Your task to perform on an android device: Go to CNN.com Image 0: 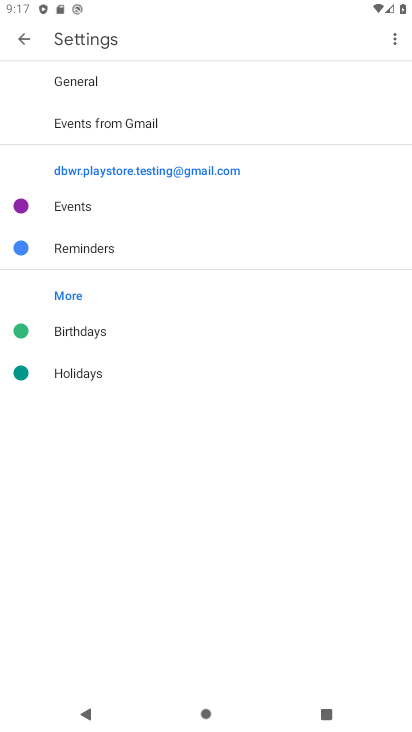
Step 0: press home button
Your task to perform on an android device: Go to CNN.com Image 1: 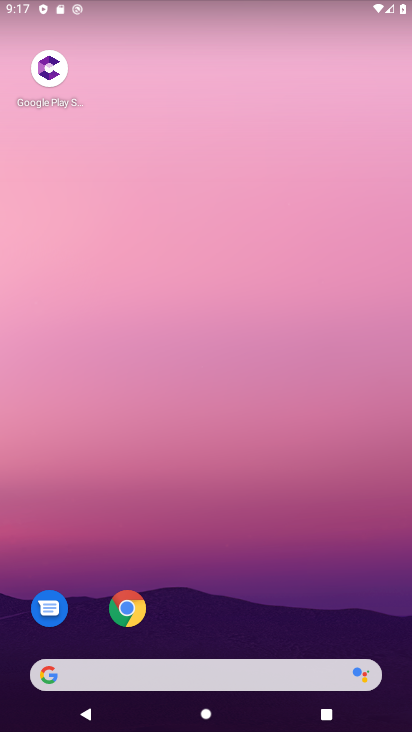
Step 1: click (129, 600)
Your task to perform on an android device: Go to CNN.com Image 2: 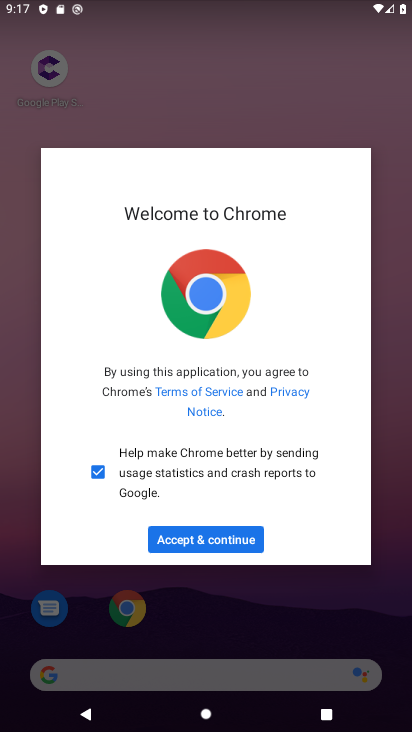
Step 2: click (231, 538)
Your task to perform on an android device: Go to CNN.com Image 3: 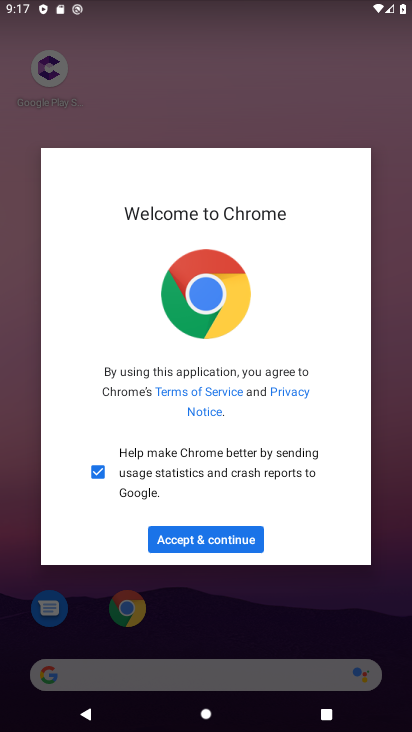
Step 3: click (324, 543)
Your task to perform on an android device: Go to CNN.com Image 4: 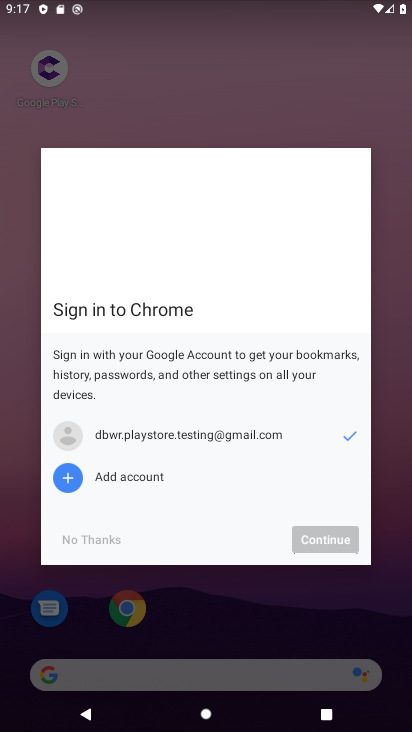
Step 4: click (324, 543)
Your task to perform on an android device: Go to CNN.com Image 5: 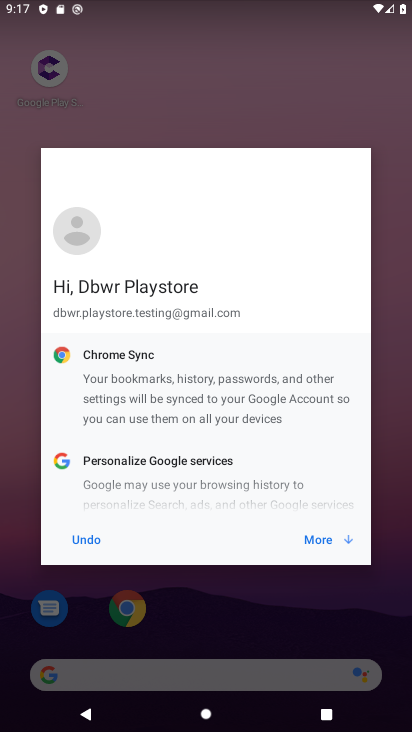
Step 5: click (324, 543)
Your task to perform on an android device: Go to CNN.com Image 6: 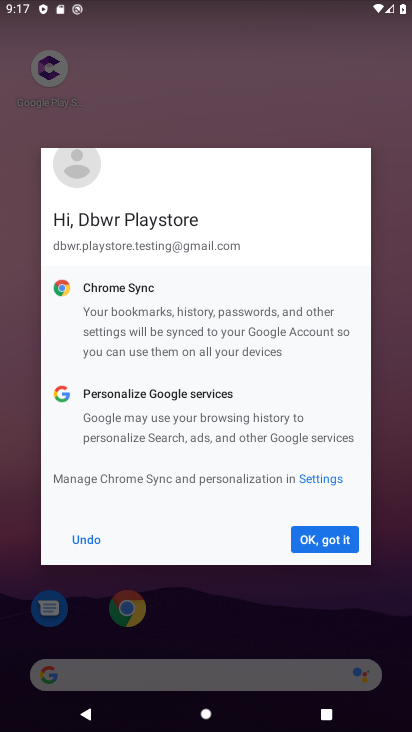
Step 6: click (324, 543)
Your task to perform on an android device: Go to CNN.com Image 7: 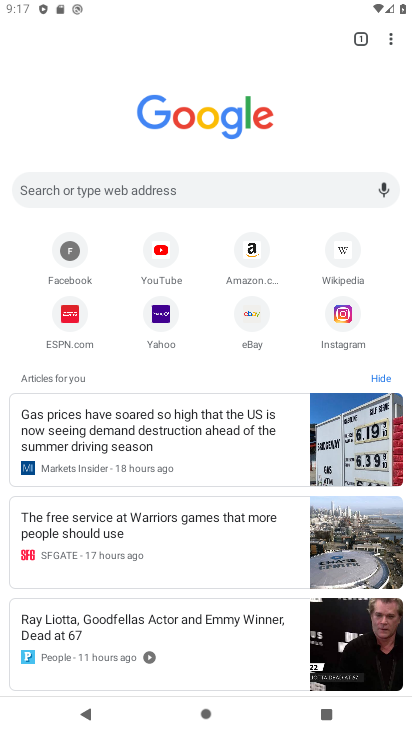
Step 7: click (144, 186)
Your task to perform on an android device: Go to CNN.com Image 8: 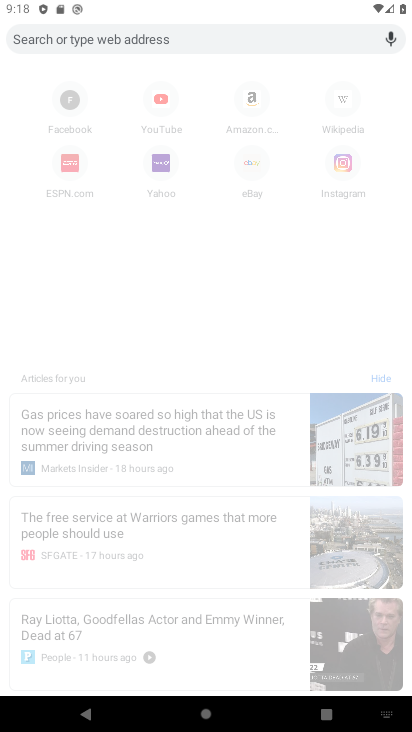
Step 8: type "CNN.com"
Your task to perform on an android device: Go to CNN.com Image 9: 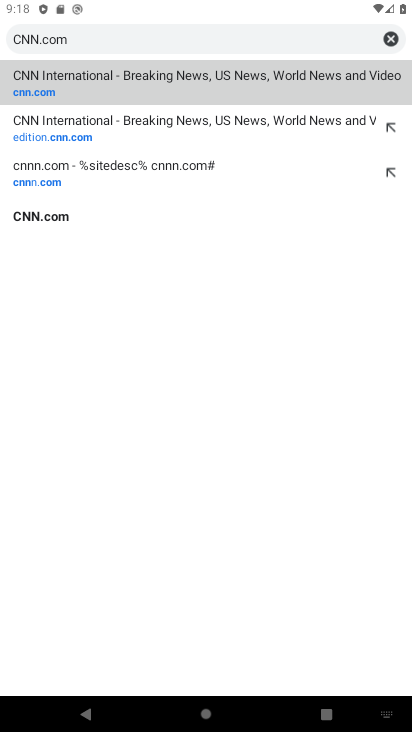
Step 9: click (174, 69)
Your task to perform on an android device: Go to CNN.com Image 10: 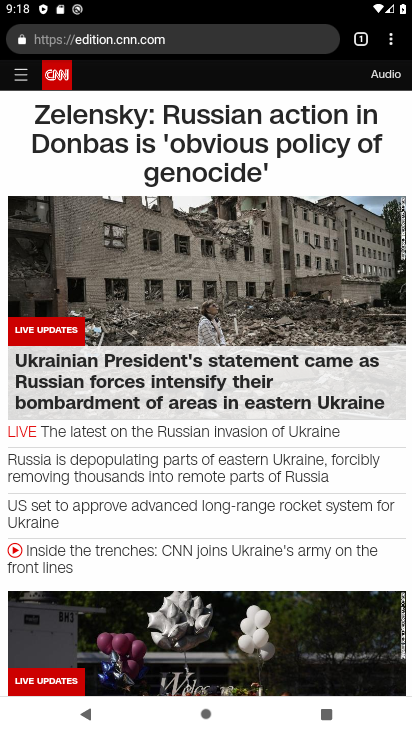
Step 10: task complete